Your task to perform on an android device: Open location settings Image 0: 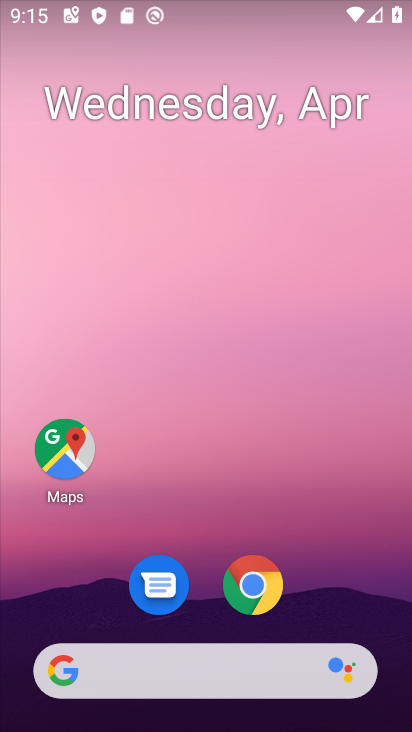
Step 0: drag from (348, 559) to (348, 111)
Your task to perform on an android device: Open location settings Image 1: 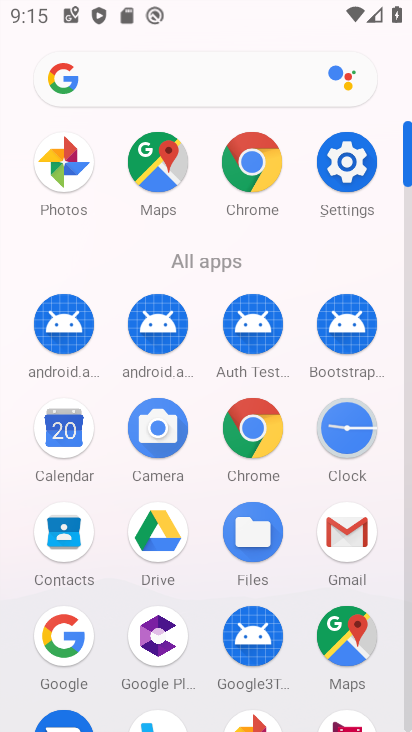
Step 1: click (343, 152)
Your task to perform on an android device: Open location settings Image 2: 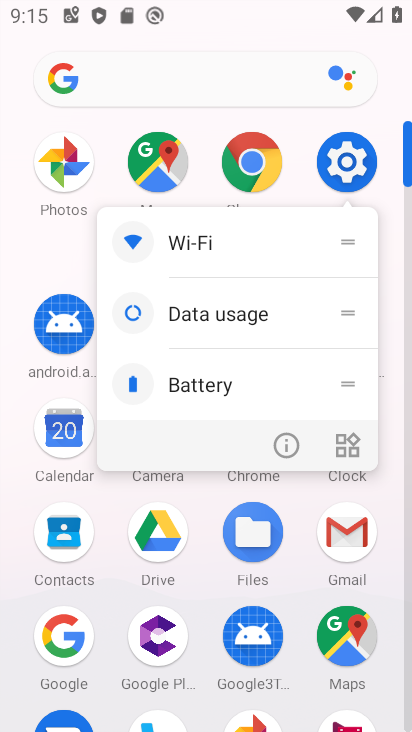
Step 2: click (343, 152)
Your task to perform on an android device: Open location settings Image 3: 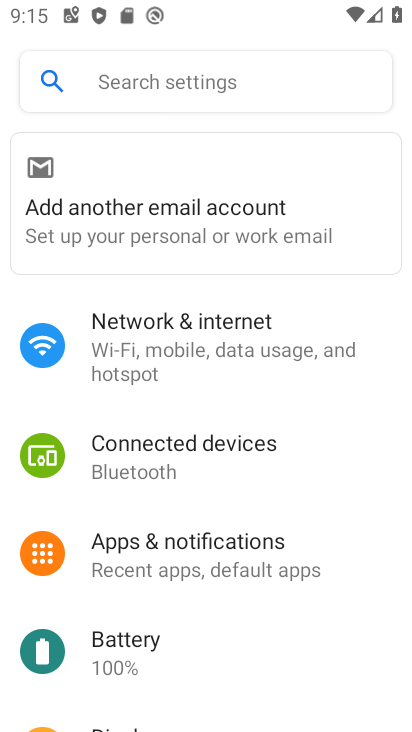
Step 3: drag from (265, 619) to (255, 215)
Your task to perform on an android device: Open location settings Image 4: 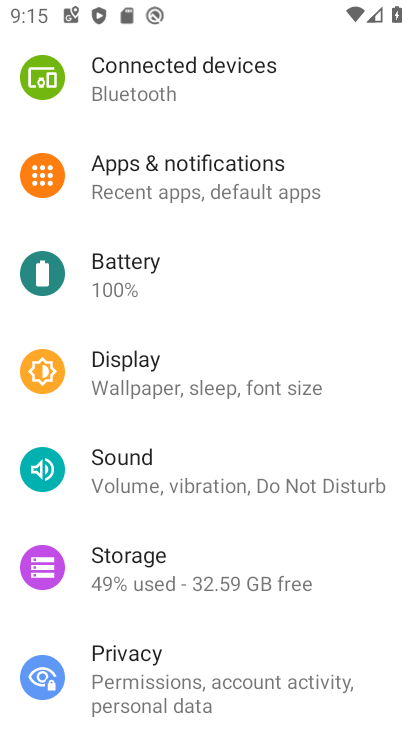
Step 4: drag from (224, 625) to (232, 188)
Your task to perform on an android device: Open location settings Image 5: 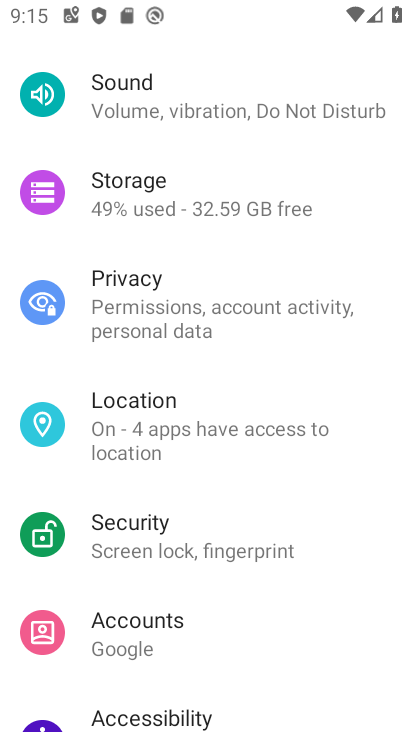
Step 5: click (207, 424)
Your task to perform on an android device: Open location settings Image 6: 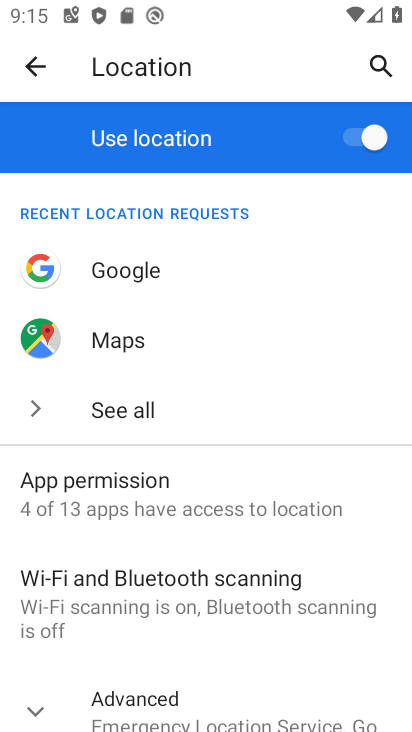
Step 6: task complete